Your task to perform on an android device: turn on javascript in the chrome app Image 0: 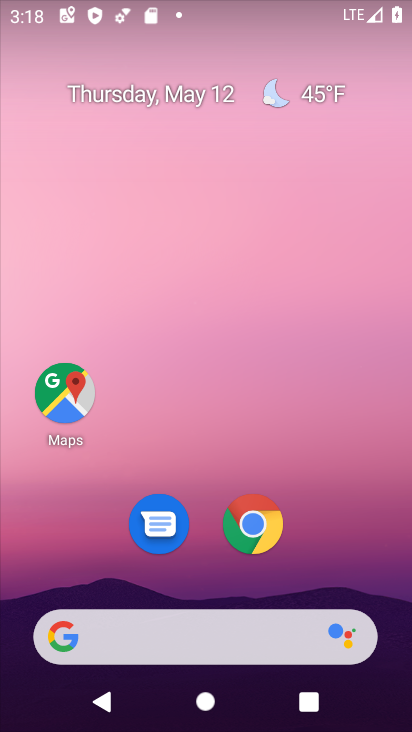
Step 0: click (262, 514)
Your task to perform on an android device: turn on javascript in the chrome app Image 1: 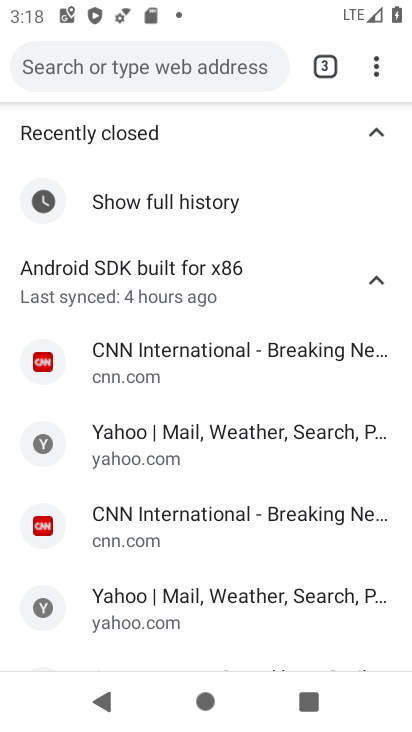
Step 1: click (368, 59)
Your task to perform on an android device: turn on javascript in the chrome app Image 2: 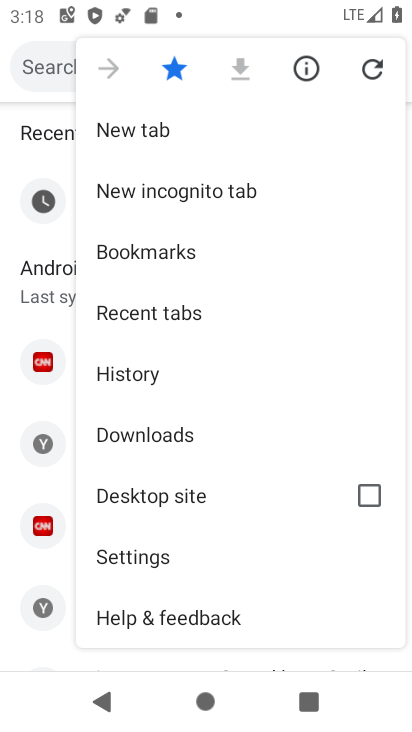
Step 2: click (203, 555)
Your task to perform on an android device: turn on javascript in the chrome app Image 3: 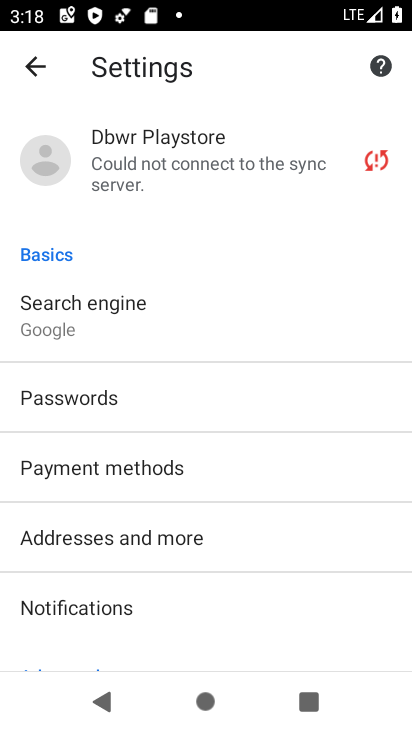
Step 3: drag from (227, 597) to (229, 125)
Your task to perform on an android device: turn on javascript in the chrome app Image 4: 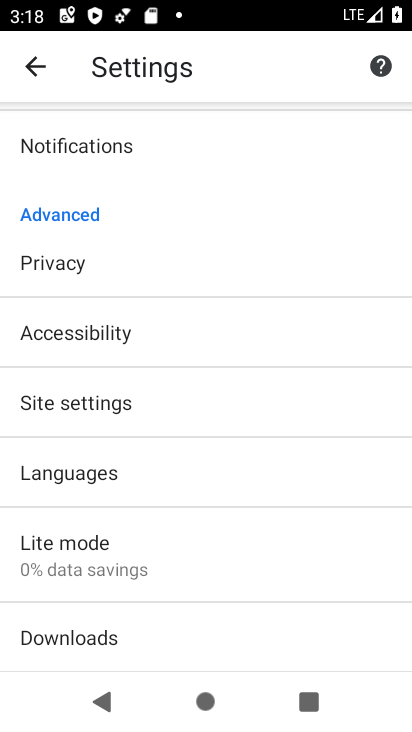
Step 4: click (207, 404)
Your task to perform on an android device: turn on javascript in the chrome app Image 5: 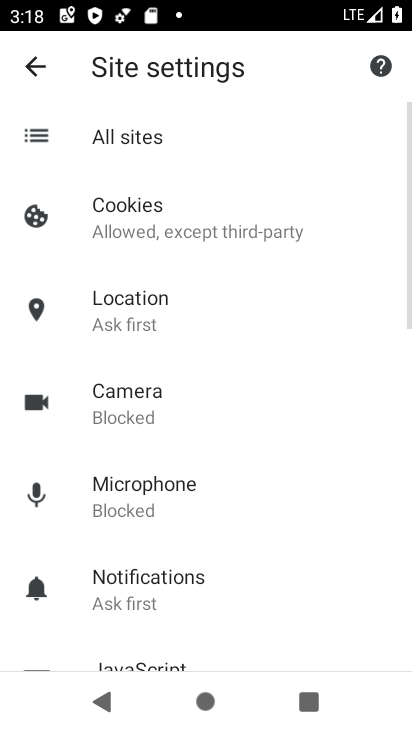
Step 5: drag from (238, 578) to (259, 205)
Your task to perform on an android device: turn on javascript in the chrome app Image 6: 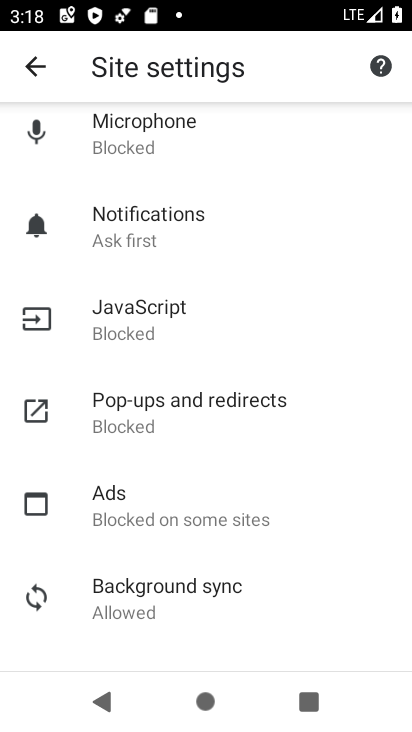
Step 6: click (195, 318)
Your task to perform on an android device: turn on javascript in the chrome app Image 7: 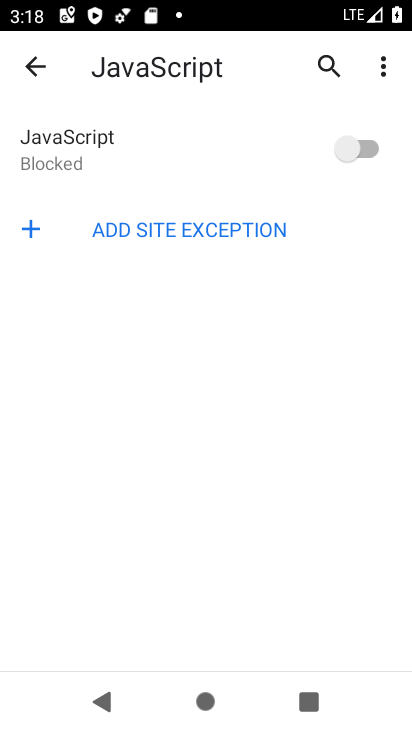
Step 7: click (359, 139)
Your task to perform on an android device: turn on javascript in the chrome app Image 8: 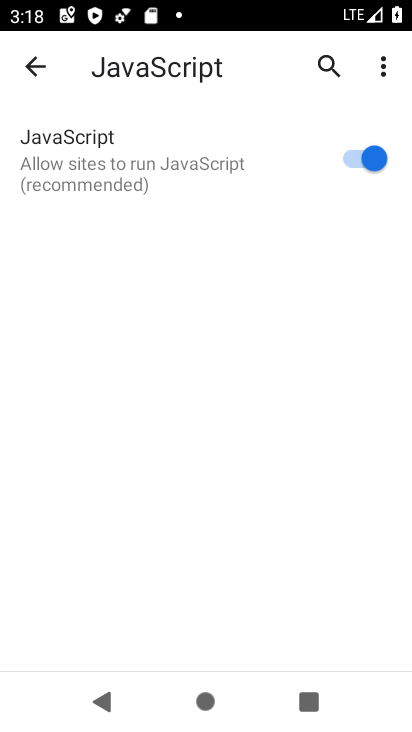
Step 8: task complete